Your task to perform on an android device: turn vacation reply on in the gmail app Image 0: 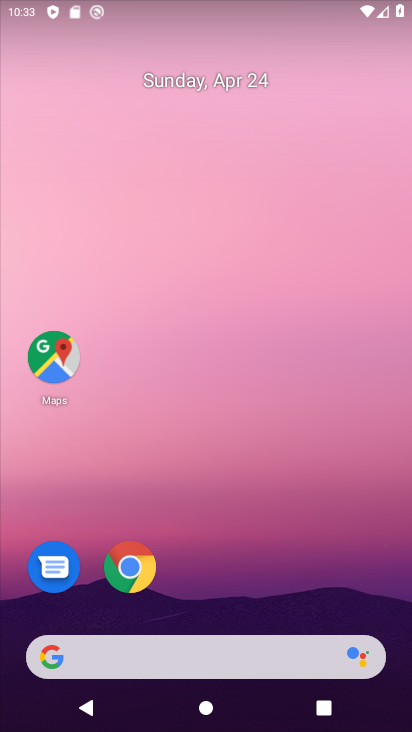
Step 0: drag from (230, 550) to (203, 212)
Your task to perform on an android device: turn vacation reply on in the gmail app Image 1: 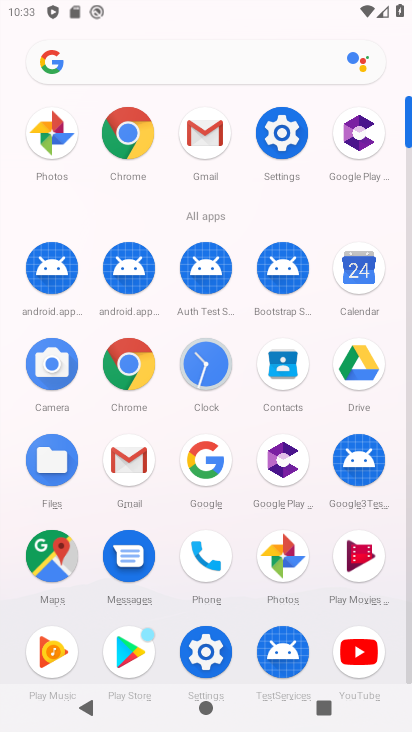
Step 1: drag from (201, 687) to (223, 412)
Your task to perform on an android device: turn vacation reply on in the gmail app Image 2: 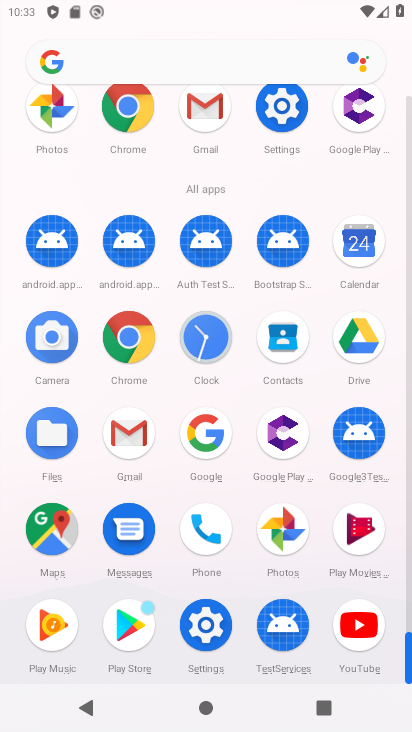
Step 2: drag from (215, 441) to (217, 585)
Your task to perform on an android device: turn vacation reply on in the gmail app Image 3: 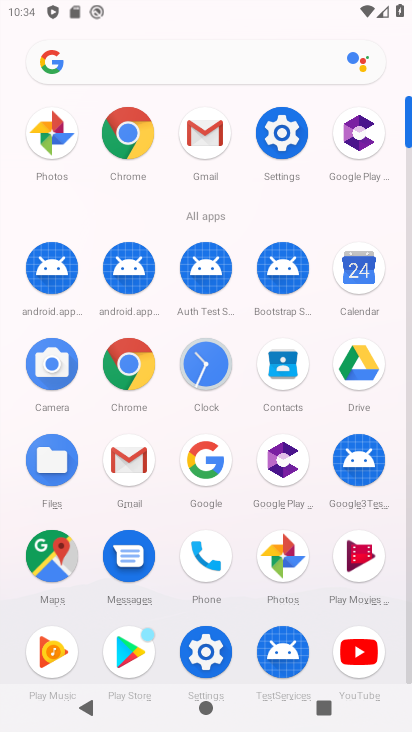
Step 3: click (144, 458)
Your task to perform on an android device: turn vacation reply on in the gmail app Image 4: 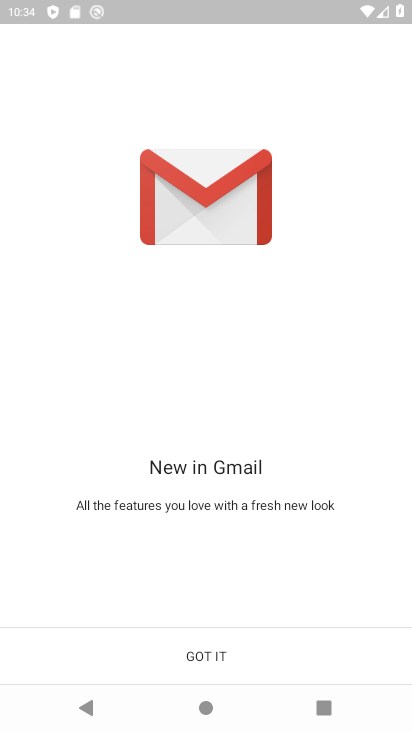
Step 4: drag from (220, 538) to (253, 253)
Your task to perform on an android device: turn vacation reply on in the gmail app Image 5: 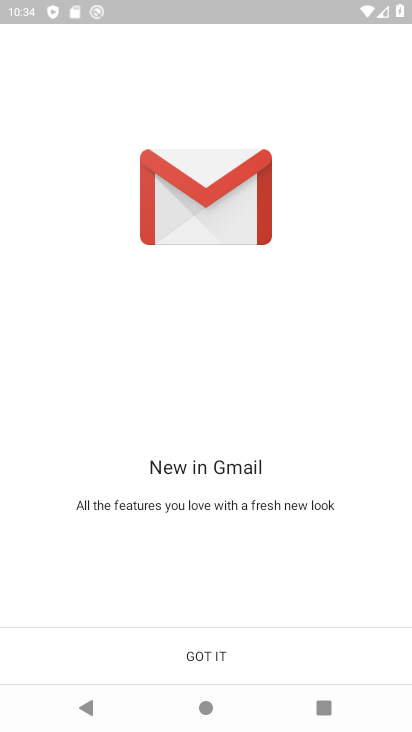
Step 5: click (319, 681)
Your task to perform on an android device: turn vacation reply on in the gmail app Image 6: 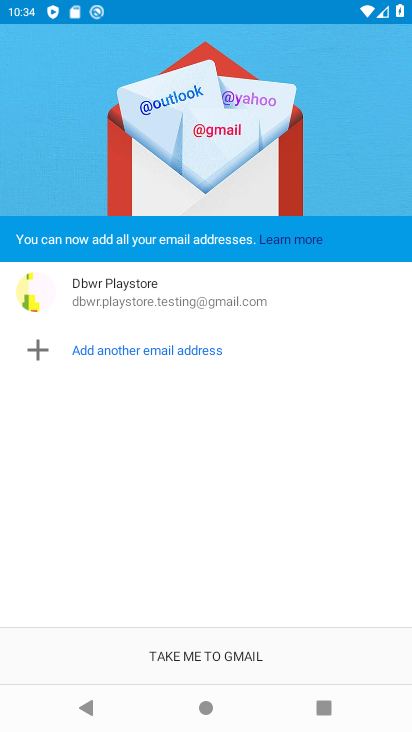
Step 6: click (317, 676)
Your task to perform on an android device: turn vacation reply on in the gmail app Image 7: 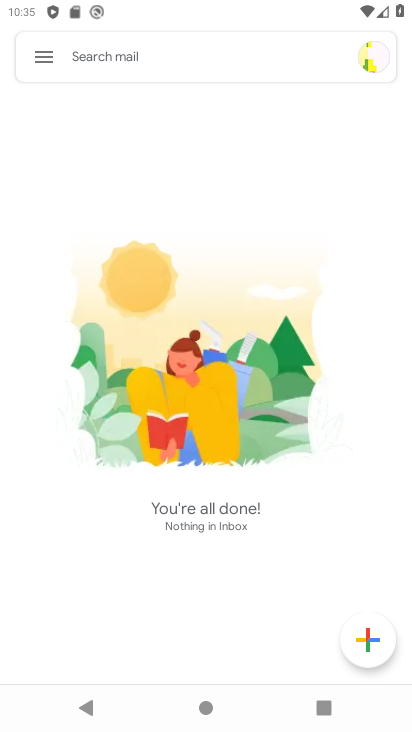
Step 7: click (34, 45)
Your task to perform on an android device: turn vacation reply on in the gmail app Image 8: 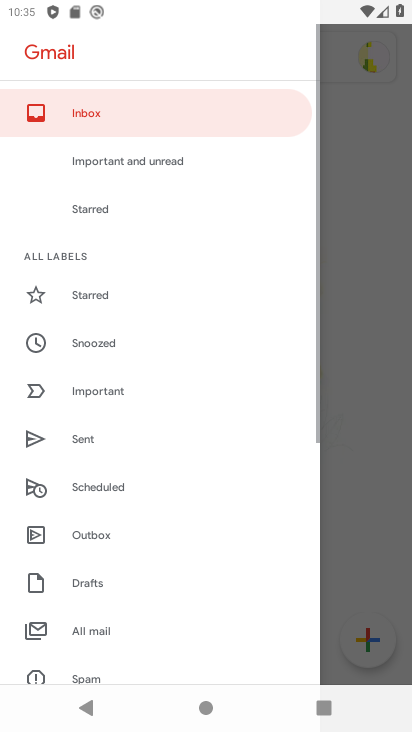
Step 8: drag from (161, 550) to (190, 188)
Your task to perform on an android device: turn vacation reply on in the gmail app Image 9: 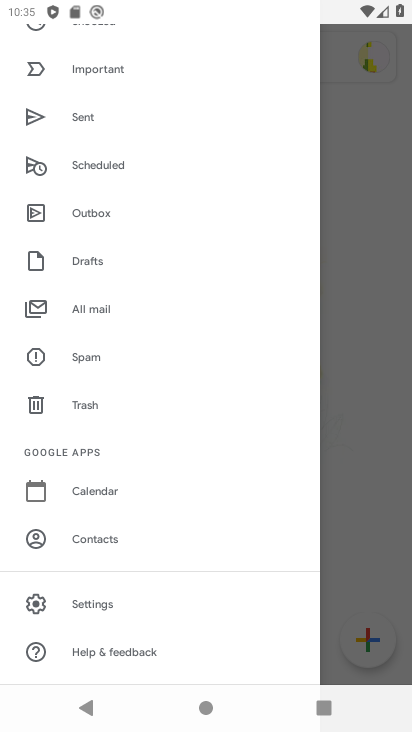
Step 9: click (114, 606)
Your task to perform on an android device: turn vacation reply on in the gmail app Image 10: 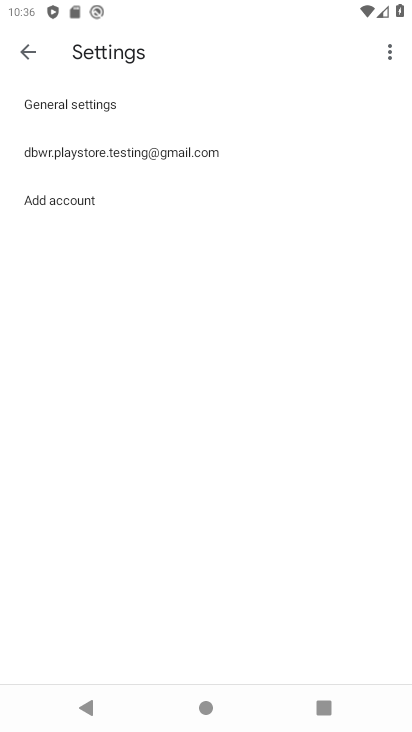
Step 10: click (207, 132)
Your task to perform on an android device: turn vacation reply on in the gmail app Image 11: 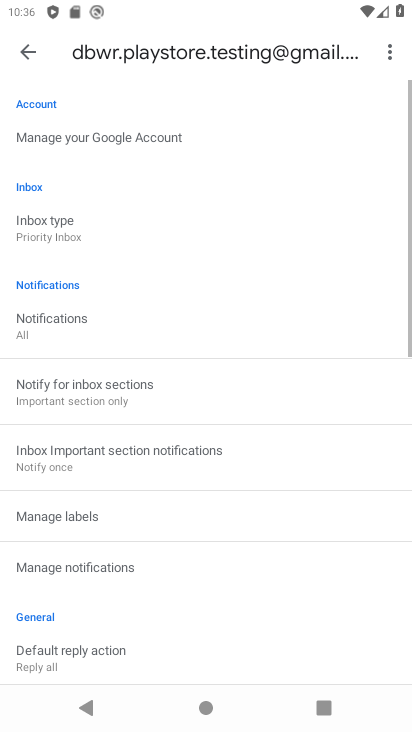
Step 11: drag from (188, 636) to (247, 146)
Your task to perform on an android device: turn vacation reply on in the gmail app Image 12: 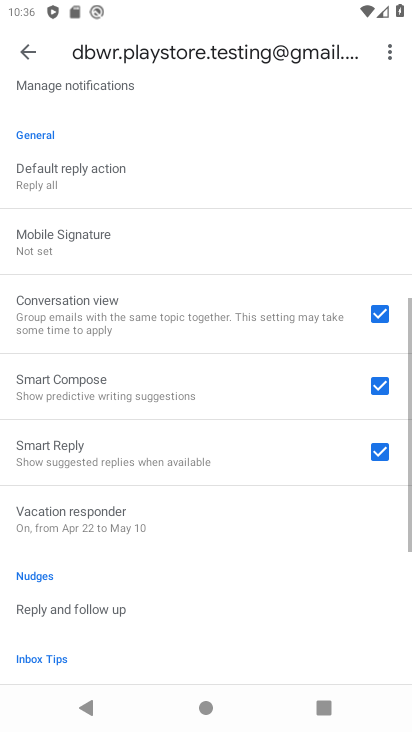
Step 12: click (130, 524)
Your task to perform on an android device: turn vacation reply on in the gmail app Image 13: 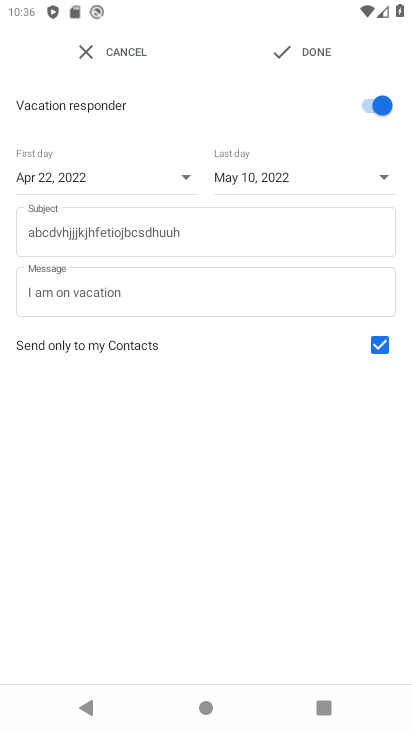
Step 13: task complete